Your task to perform on an android device: open app "File Manager" Image 0: 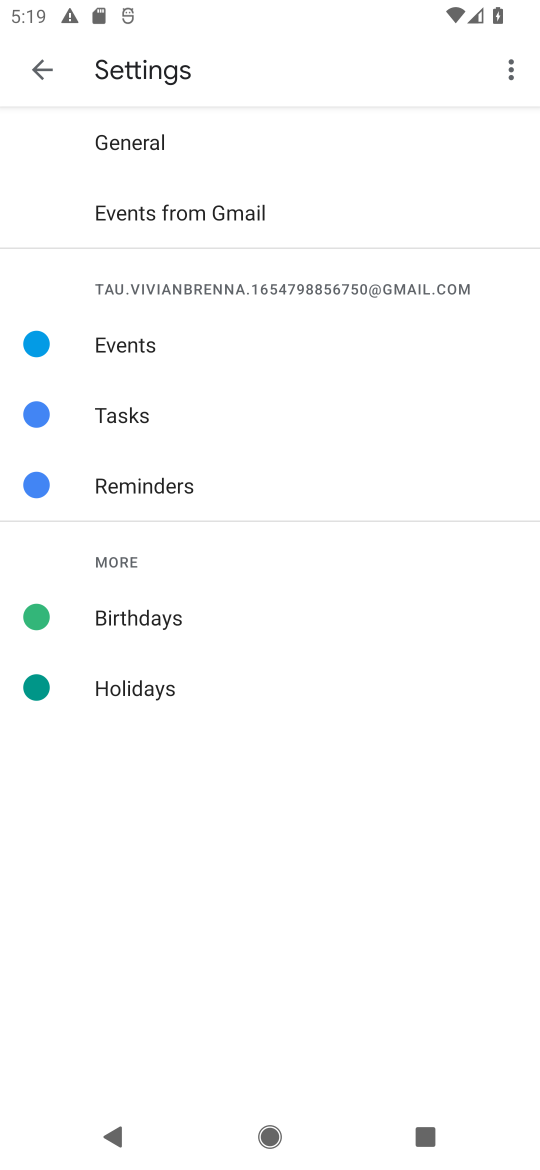
Step 0: press home button
Your task to perform on an android device: open app "File Manager" Image 1: 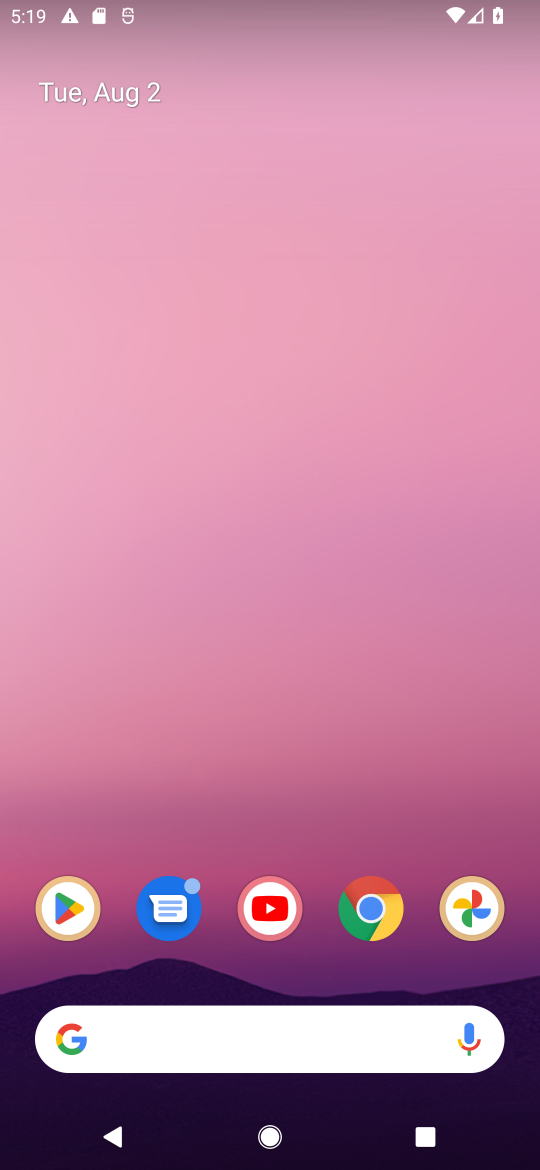
Step 1: click (63, 896)
Your task to perform on an android device: open app "File Manager" Image 2: 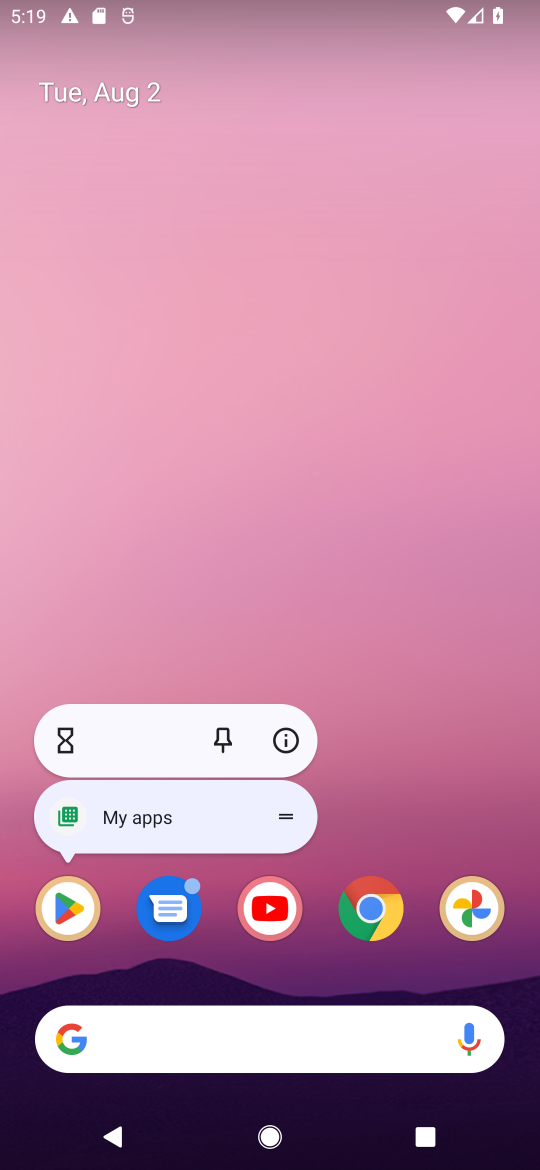
Step 2: click (63, 896)
Your task to perform on an android device: open app "File Manager" Image 3: 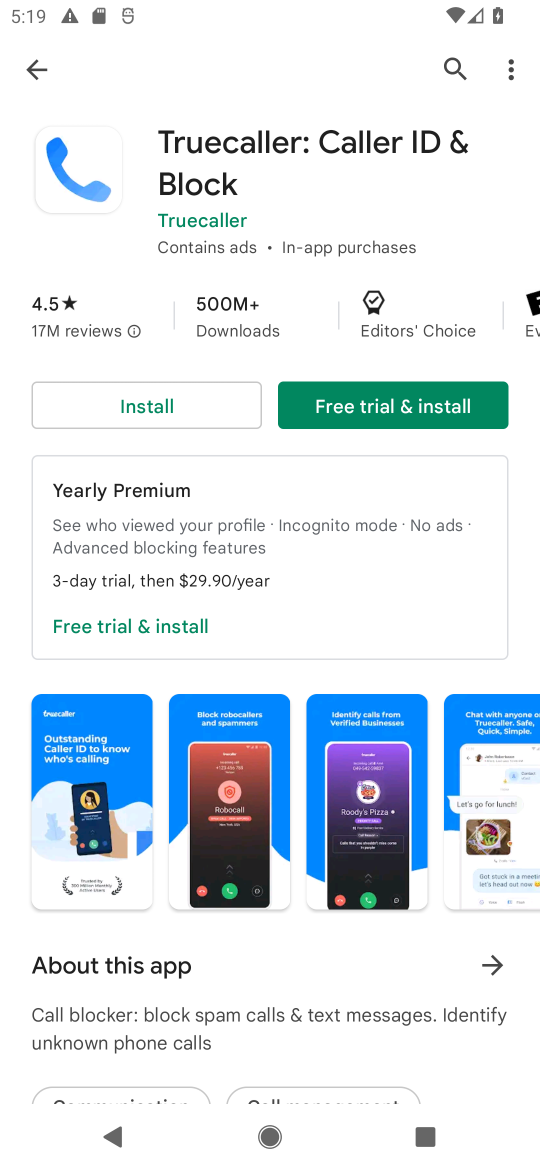
Step 3: click (460, 69)
Your task to perform on an android device: open app "File Manager" Image 4: 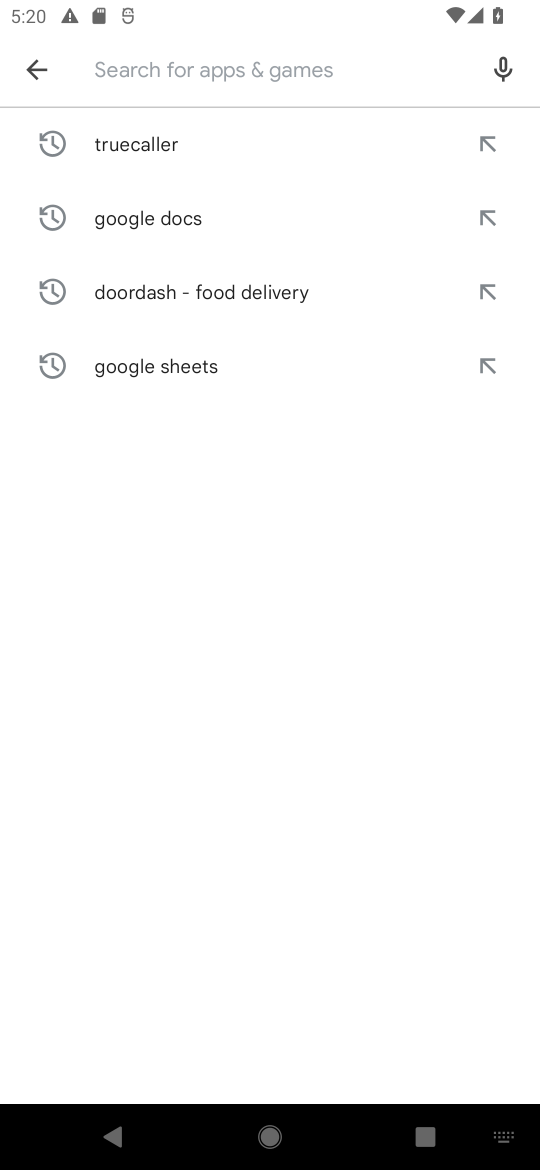
Step 4: type "File Manager"
Your task to perform on an android device: open app "File Manager" Image 5: 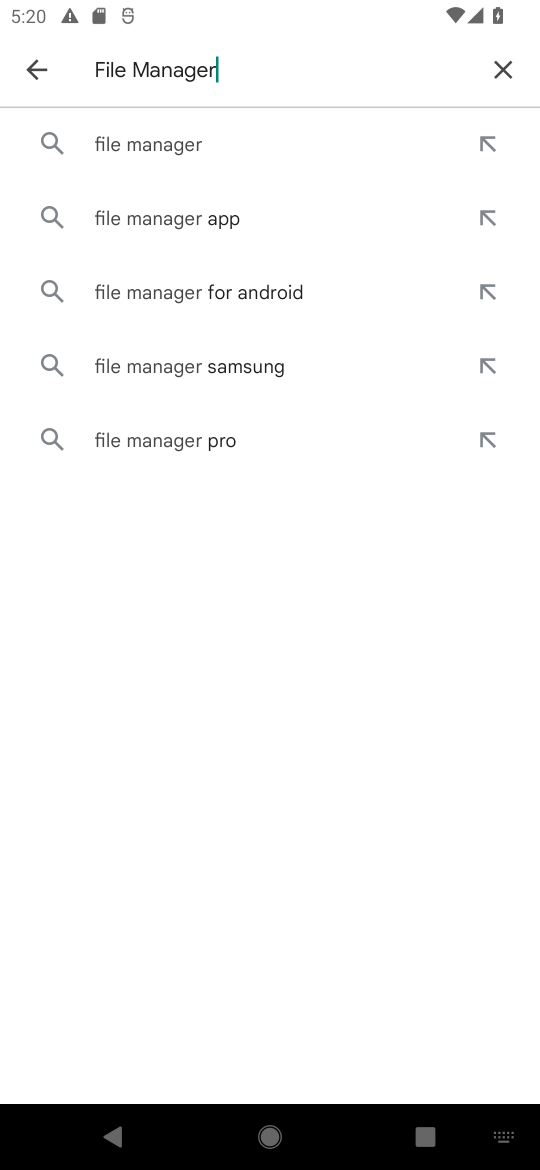
Step 5: click (209, 131)
Your task to perform on an android device: open app "File Manager" Image 6: 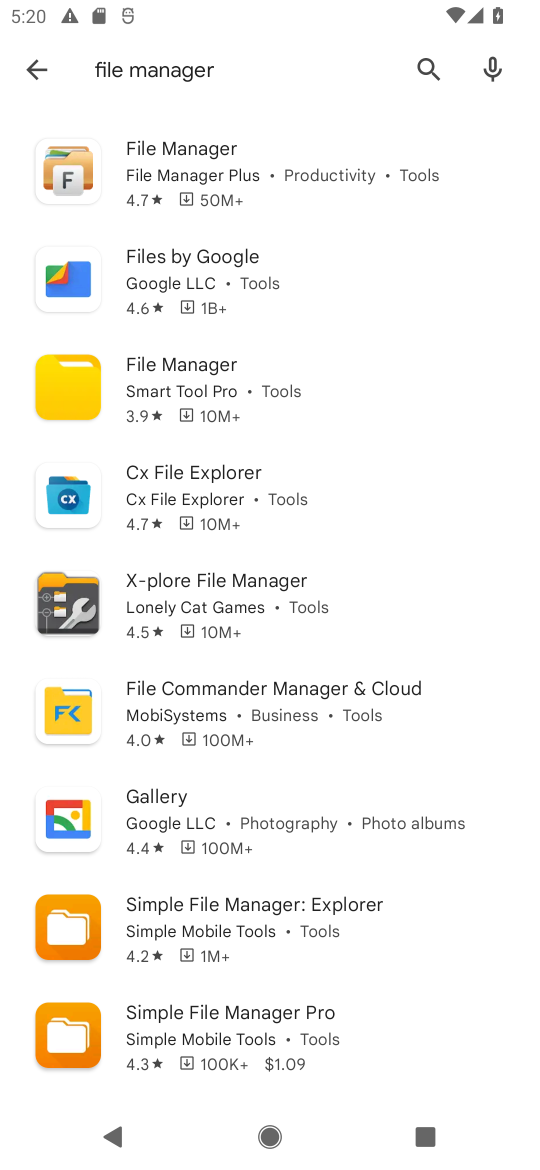
Step 6: click (172, 392)
Your task to perform on an android device: open app "File Manager" Image 7: 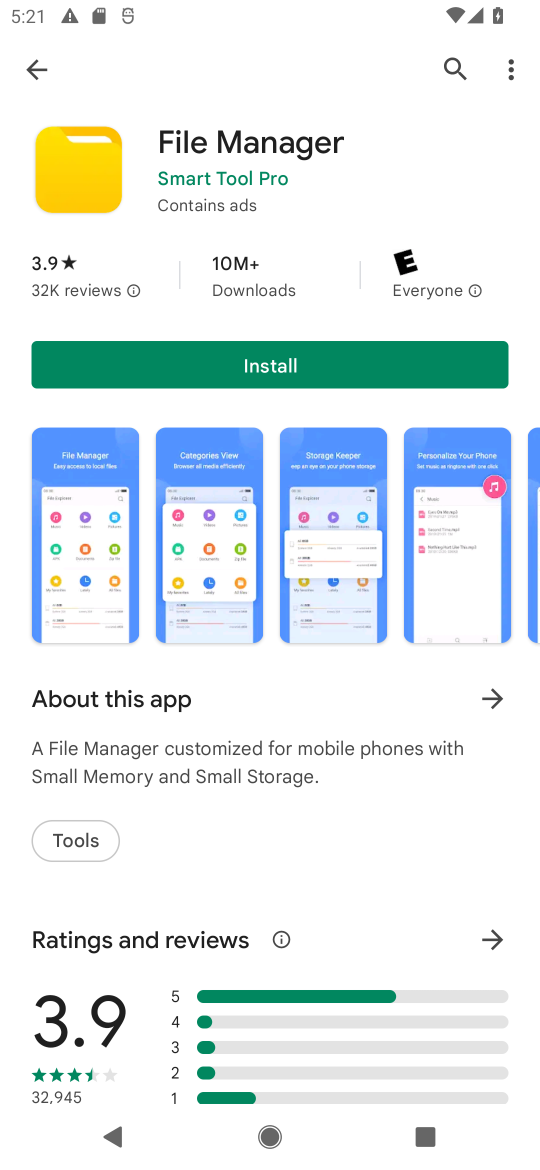
Step 7: task complete